Your task to perform on an android device: set the stopwatch Image 0: 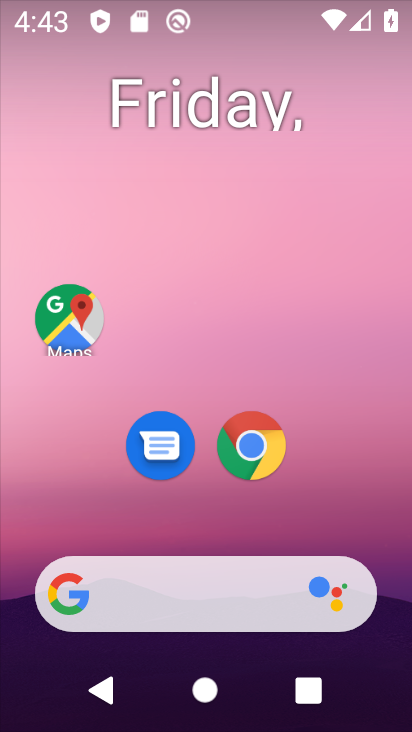
Step 0: drag from (353, 508) to (316, 64)
Your task to perform on an android device: set the stopwatch Image 1: 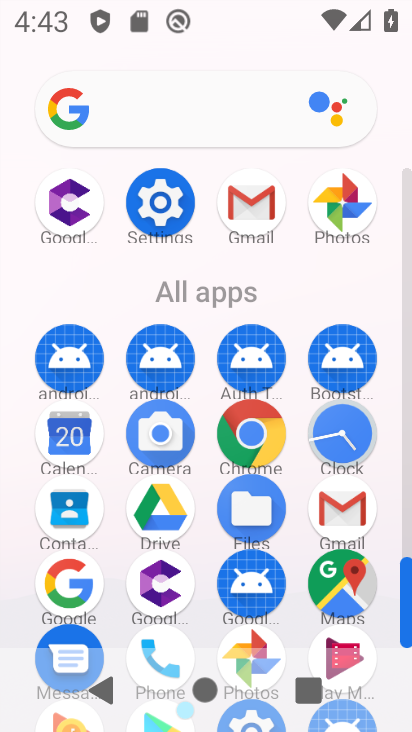
Step 1: click (329, 420)
Your task to perform on an android device: set the stopwatch Image 2: 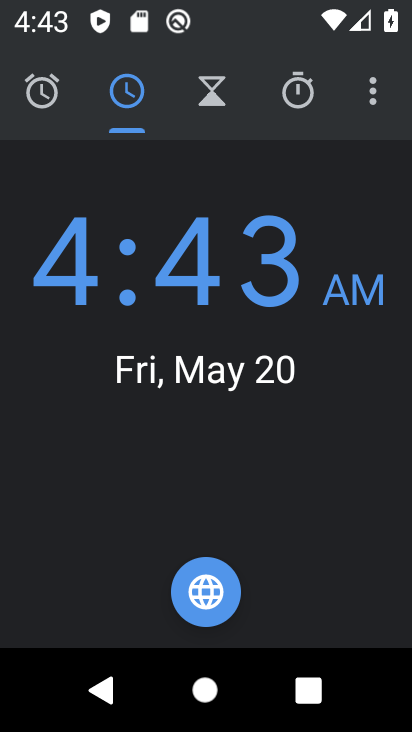
Step 2: click (310, 93)
Your task to perform on an android device: set the stopwatch Image 3: 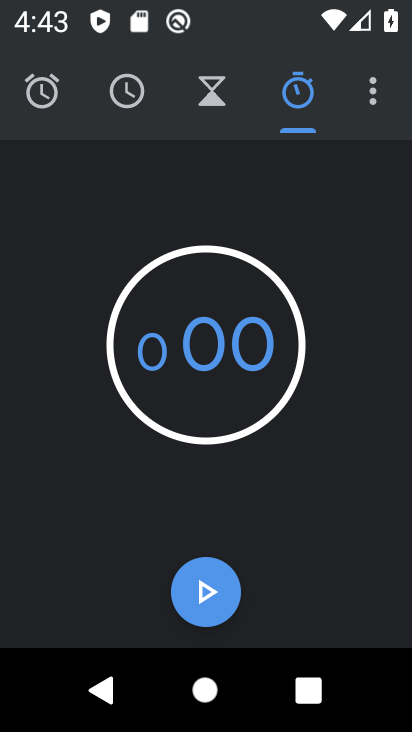
Step 3: task complete